Your task to perform on an android device: Open Wikipedia Image 0: 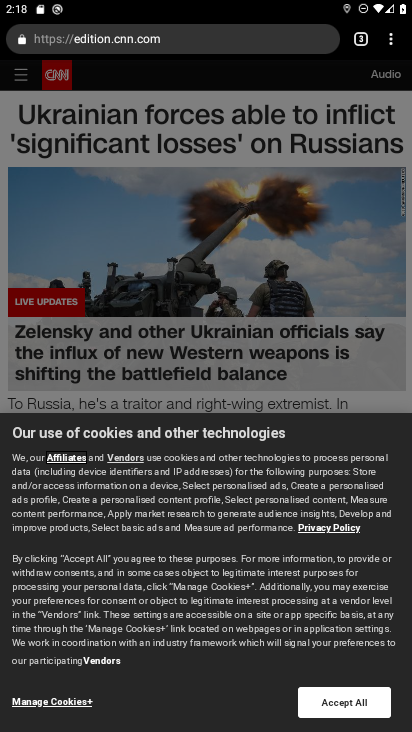
Step 0: press home button
Your task to perform on an android device: Open Wikipedia Image 1: 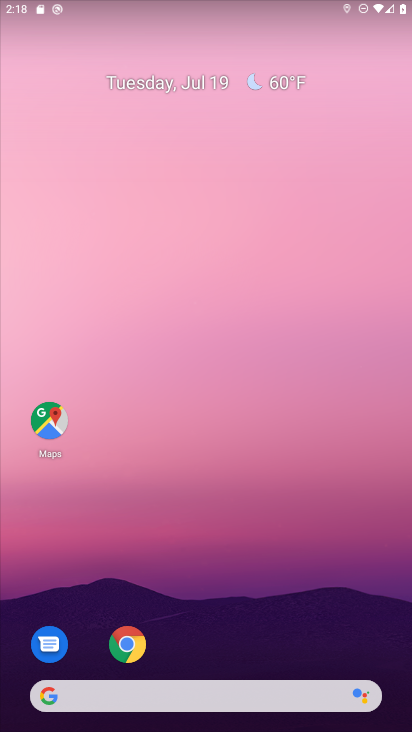
Step 1: click (131, 637)
Your task to perform on an android device: Open Wikipedia Image 2: 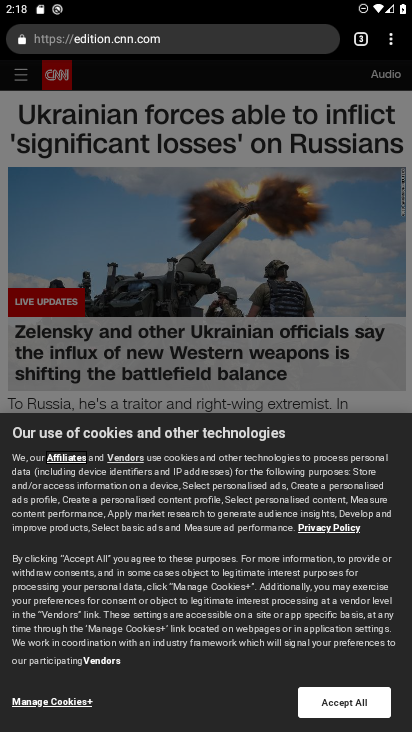
Step 2: click (361, 32)
Your task to perform on an android device: Open Wikipedia Image 3: 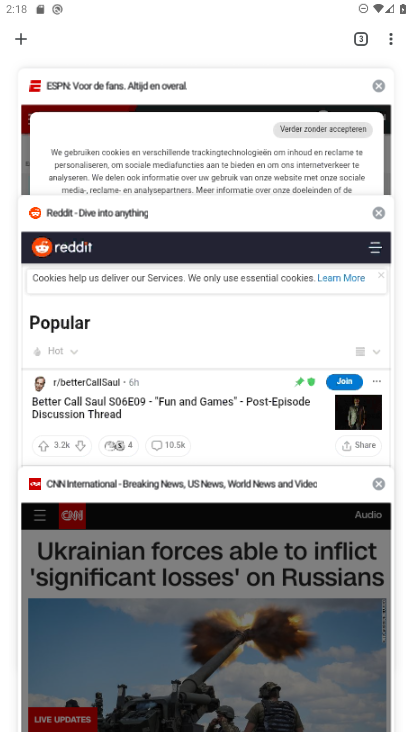
Step 3: click (20, 40)
Your task to perform on an android device: Open Wikipedia Image 4: 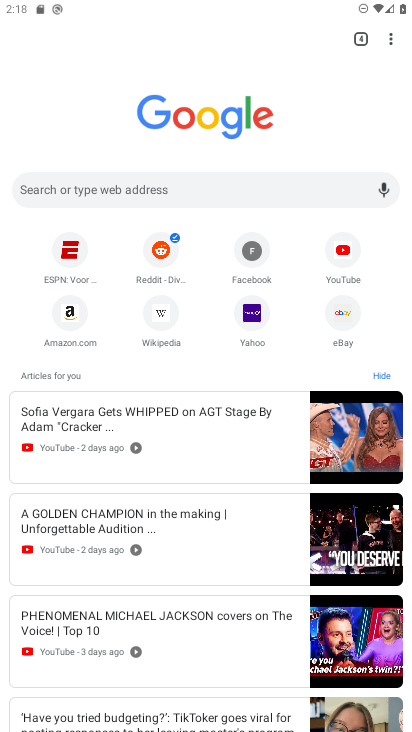
Step 4: click (160, 312)
Your task to perform on an android device: Open Wikipedia Image 5: 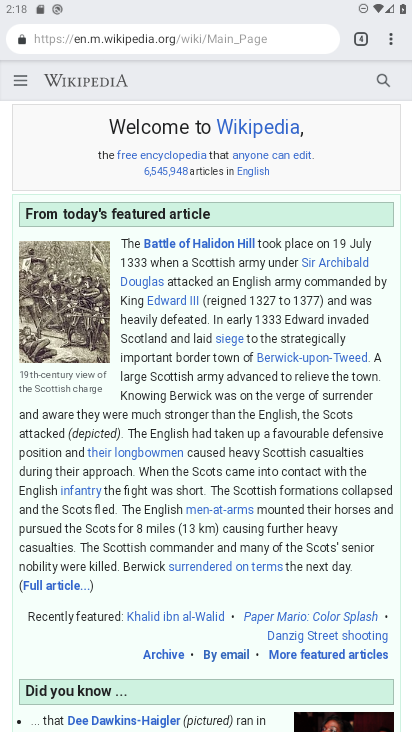
Step 5: task complete